Your task to perform on an android device: Find coffee shops on Maps Image 0: 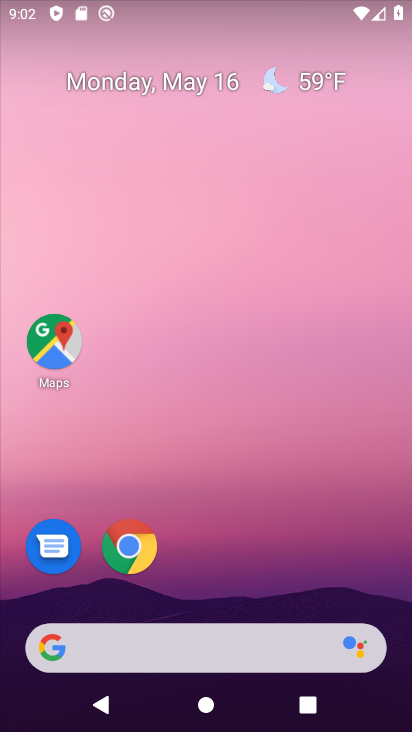
Step 0: drag from (336, 535) to (411, 84)
Your task to perform on an android device: Find coffee shops on Maps Image 1: 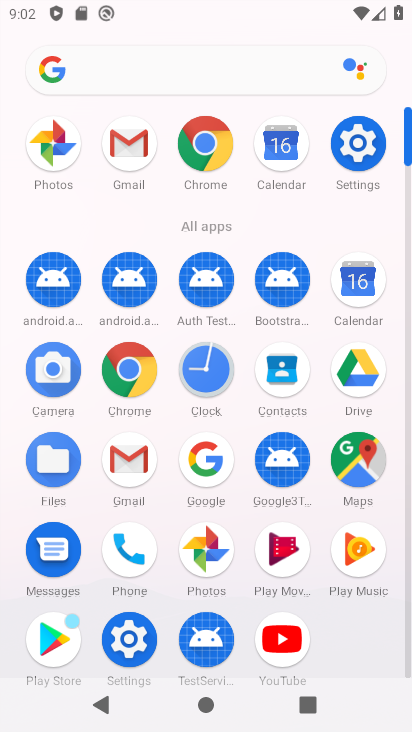
Step 1: click (364, 476)
Your task to perform on an android device: Find coffee shops on Maps Image 2: 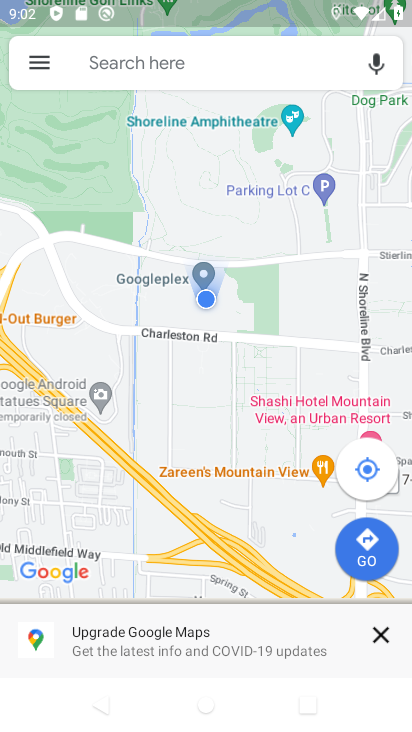
Step 2: click (189, 64)
Your task to perform on an android device: Find coffee shops on Maps Image 3: 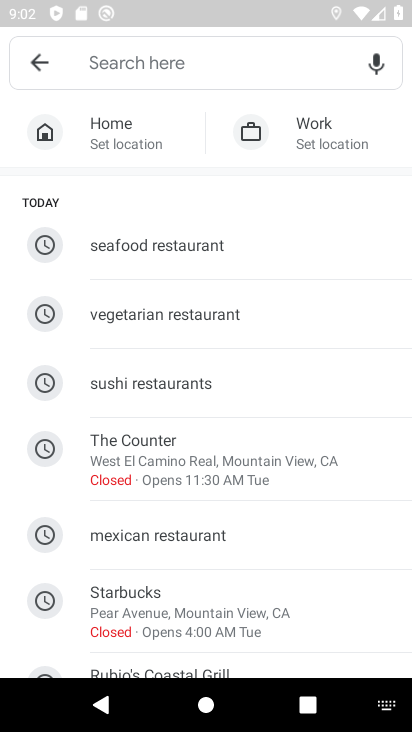
Step 3: drag from (193, 572) to (227, 228)
Your task to perform on an android device: Find coffee shops on Maps Image 4: 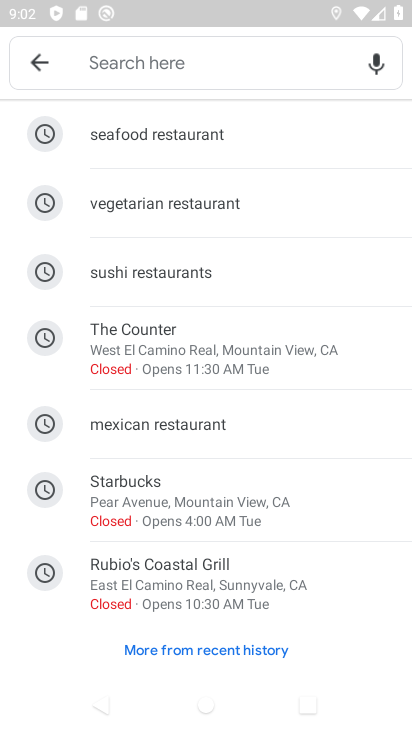
Step 4: drag from (227, 231) to (235, 578)
Your task to perform on an android device: Find coffee shops on Maps Image 5: 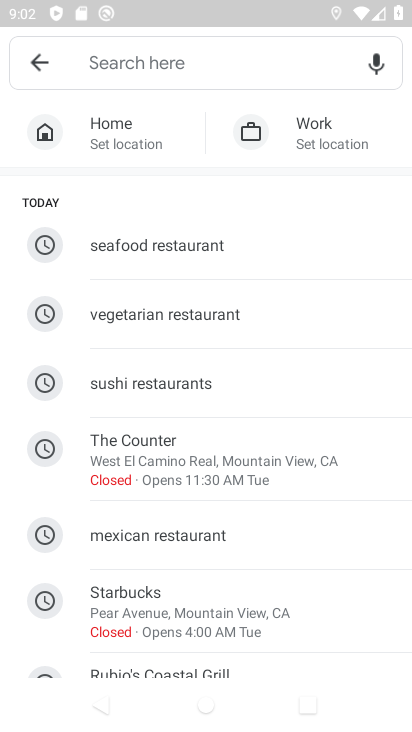
Step 5: click (187, 63)
Your task to perform on an android device: Find coffee shops on Maps Image 6: 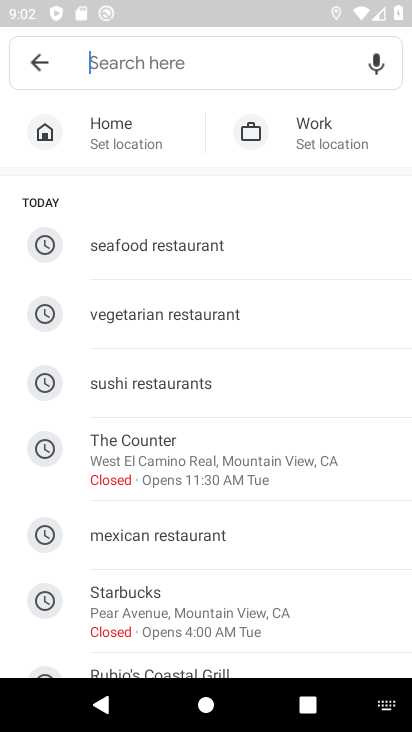
Step 6: type "coffee"
Your task to perform on an android device: Find coffee shops on Maps Image 7: 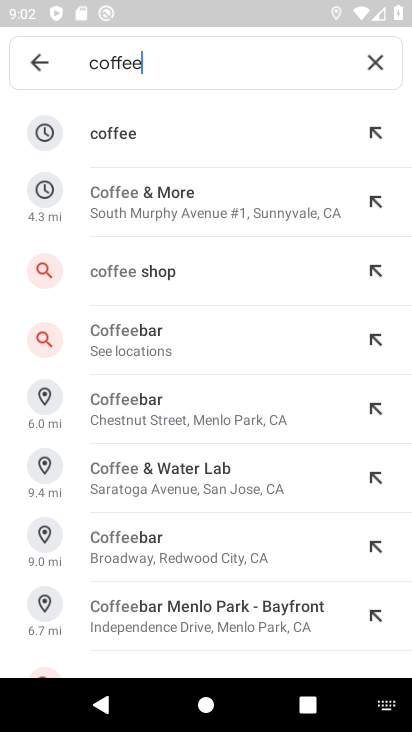
Step 7: click (195, 130)
Your task to perform on an android device: Find coffee shops on Maps Image 8: 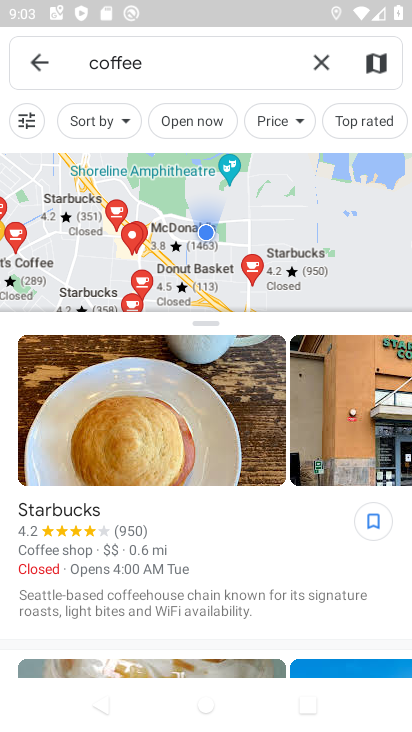
Step 8: task complete